Your task to perform on an android device: empty trash in google photos Image 0: 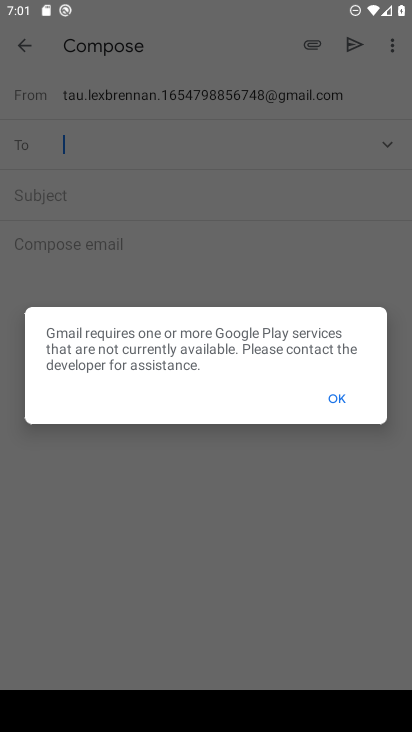
Step 0: press home button
Your task to perform on an android device: empty trash in google photos Image 1: 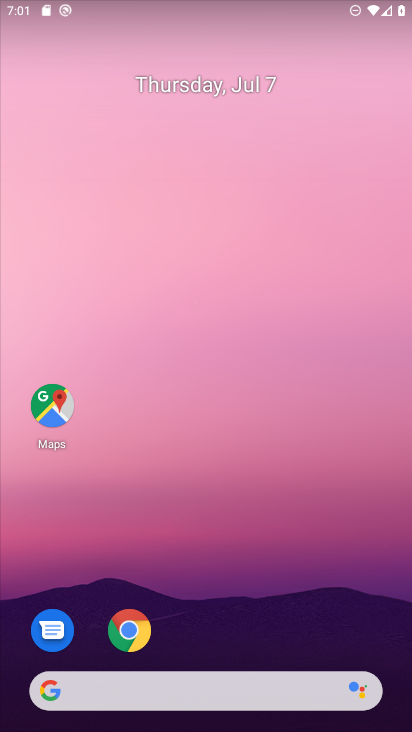
Step 1: drag from (165, 523) to (140, 158)
Your task to perform on an android device: empty trash in google photos Image 2: 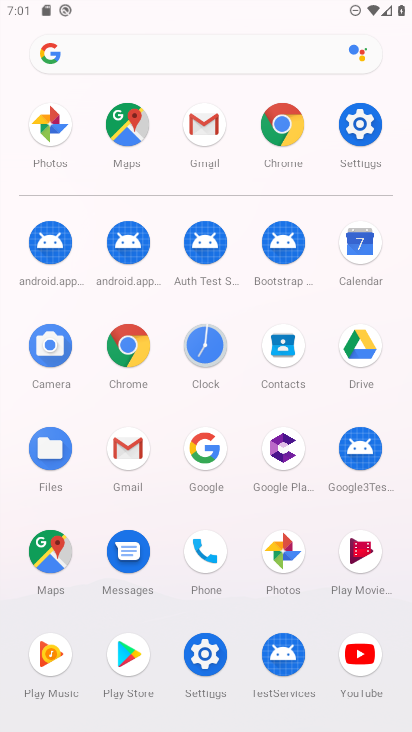
Step 2: click (274, 548)
Your task to perform on an android device: empty trash in google photos Image 3: 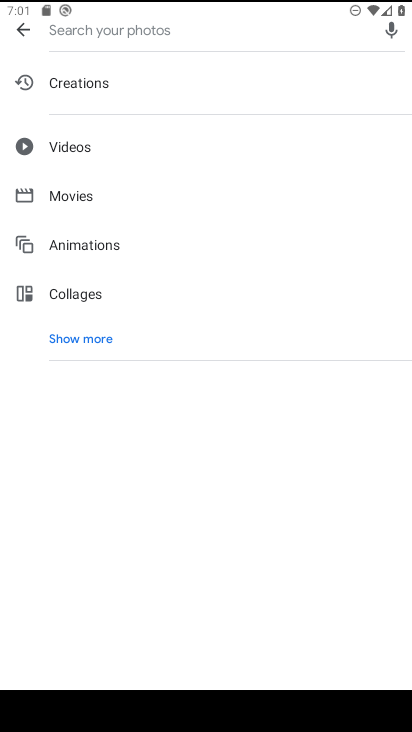
Step 3: click (27, 28)
Your task to perform on an android device: empty trash in google photos Image 4: 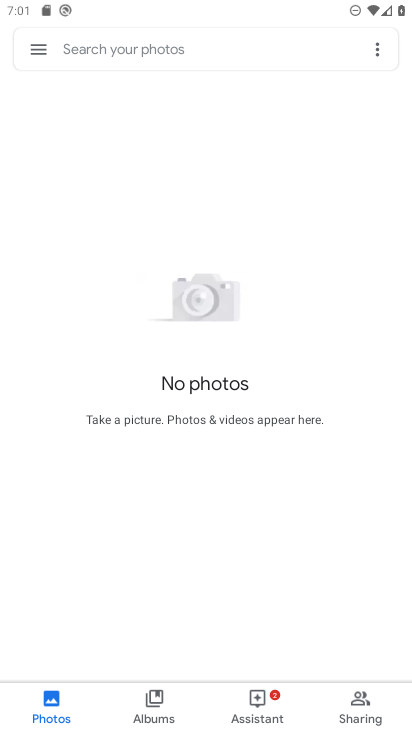
Step 4: click (43, 52)
Your task to perform on an android device: empty trash in google photos Image 5: 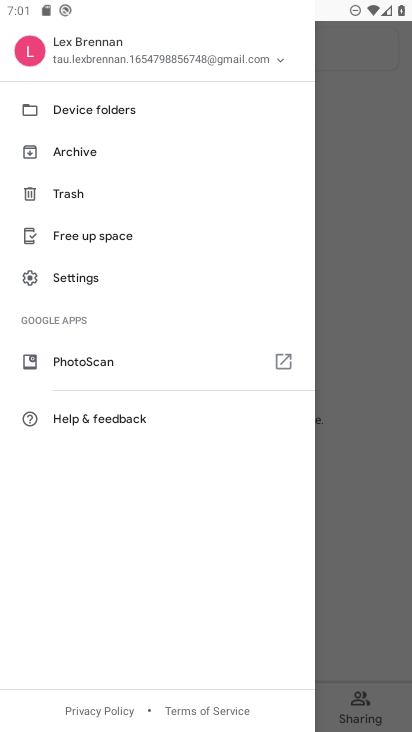
Step 5: click (59, 191)
Your task to perform on an android device: empty trash in google photos Image 6: 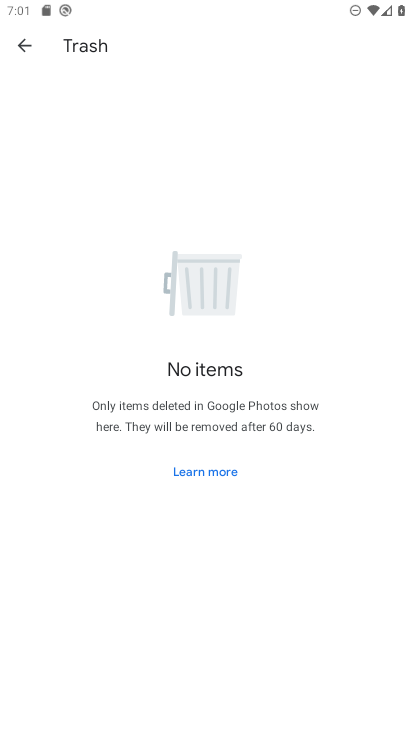
Step 6: task complete